Your task to perform on an android device: What's the weather today? Image 0: 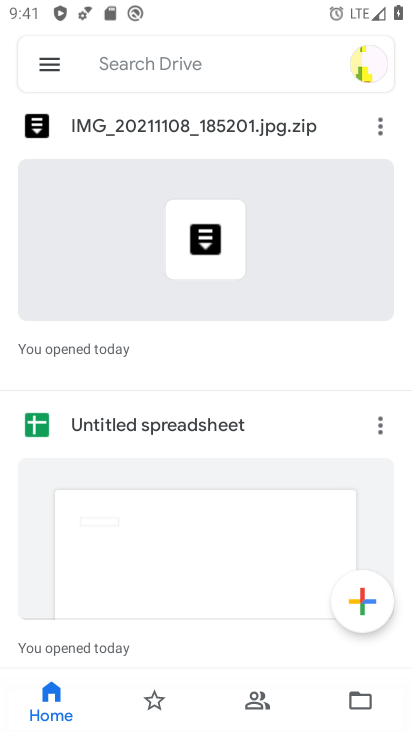
Step 0: press home button
Your task to perform on an android device: What's the weather today? Image 1: 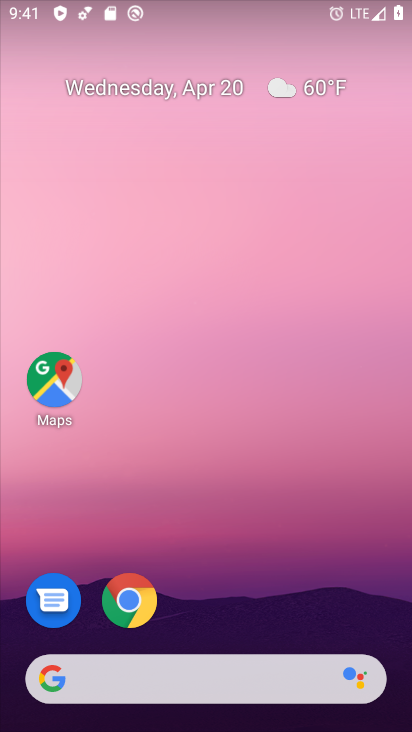
Step 1: click (188, 668)
Your task to perform on an android device: What's the weather today? Image 2: 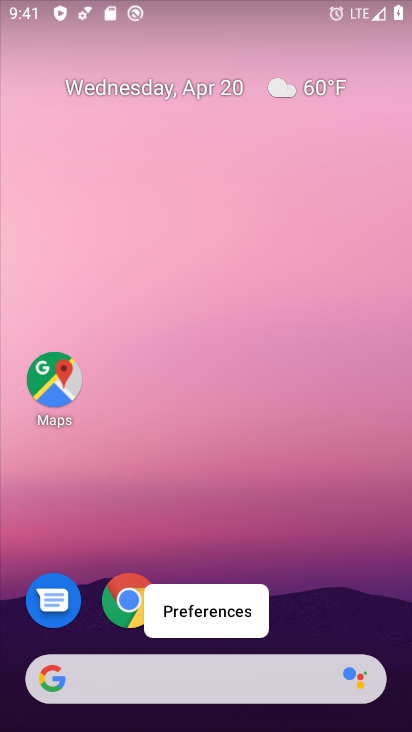
Step 2: click (165, 686)
Your task to perform on an android device: What's the weather today? Image 3: 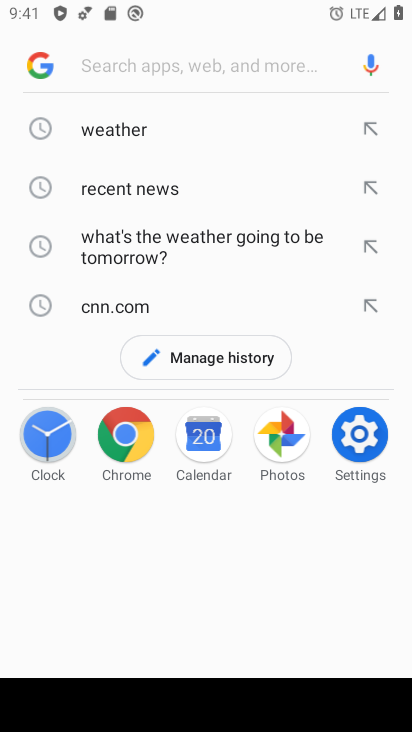
Step 3: click (119, 135)
Your task to perform on an android device: What's the weather today? Image 4: 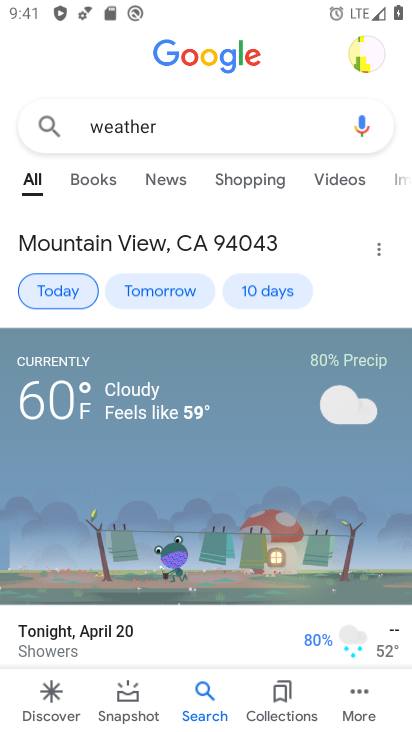
Step 4: task complete